Your task to perform on an android device: change notifications settings Image 0: 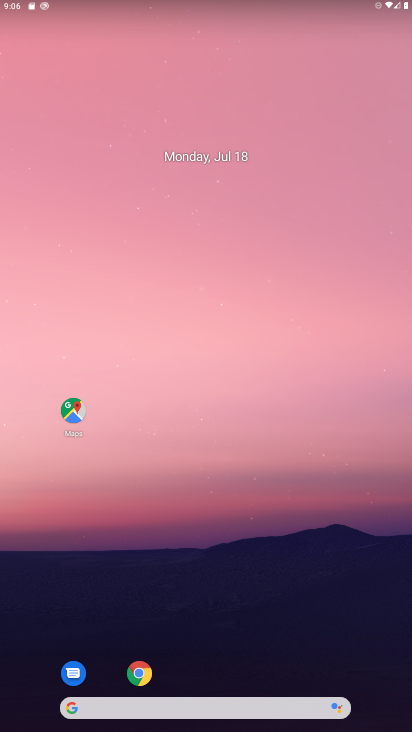
Step 0: press home button
Your task to perform on an android device: change notifications settings Image 1: 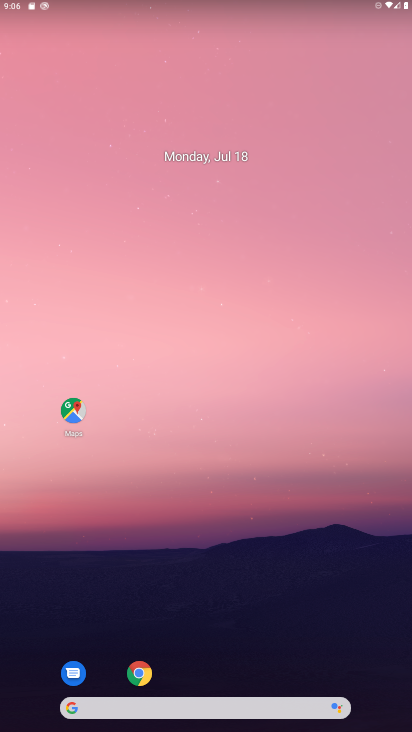
Step 1: drag from (219, 684) to (253, 65)
Your task to perform on an android device: change notifications settings Image 2: 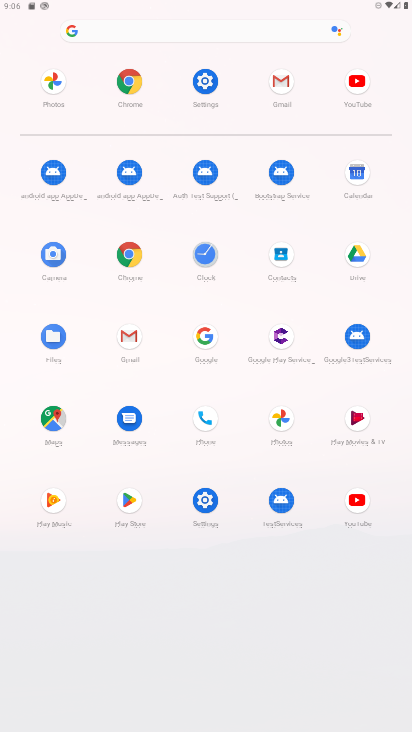
Step 2: click (208, 82)
Your task to perform on an android device: change notifications settings Image 3: 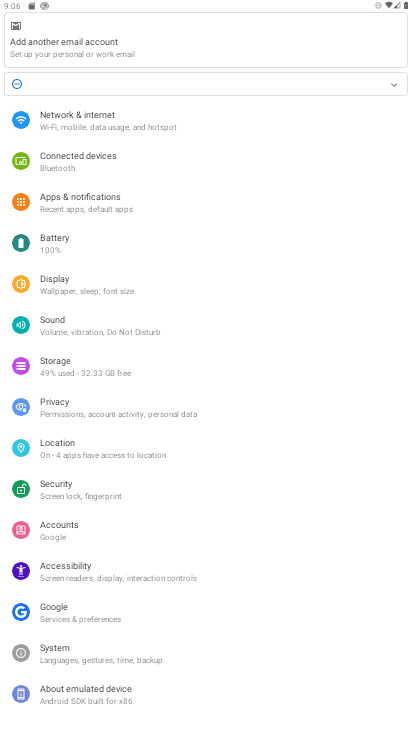
Step 3: click (74, 190)
Your task to perform on an android device: change notifications settings Image 4: 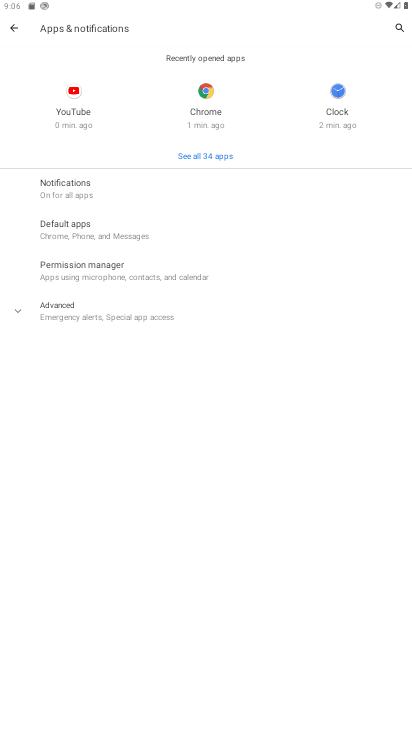
Step 4: click (64, 187)
Your task to perform on an android device: change notifications settings Image 5: 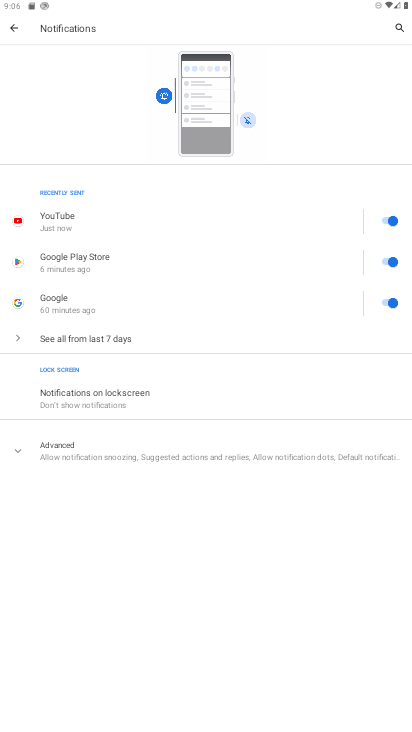
Step 5: click (71, 396)
Your task to perform on an android device: change notifications settings Image 6: 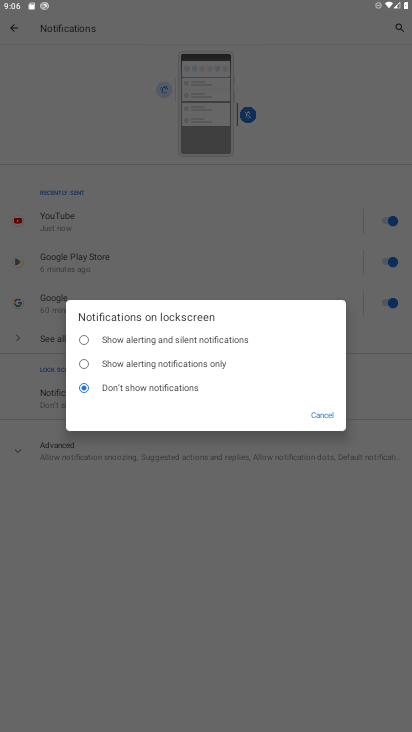
Step 6: click (79, 339)
Your task to perform on an android device: change notifications settings Image 7: 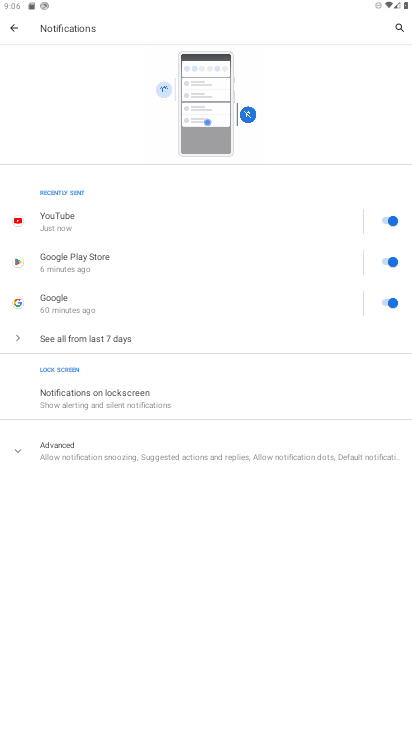
Step 7: task complete